Your task to perform on an android device: Open settings Image 0: 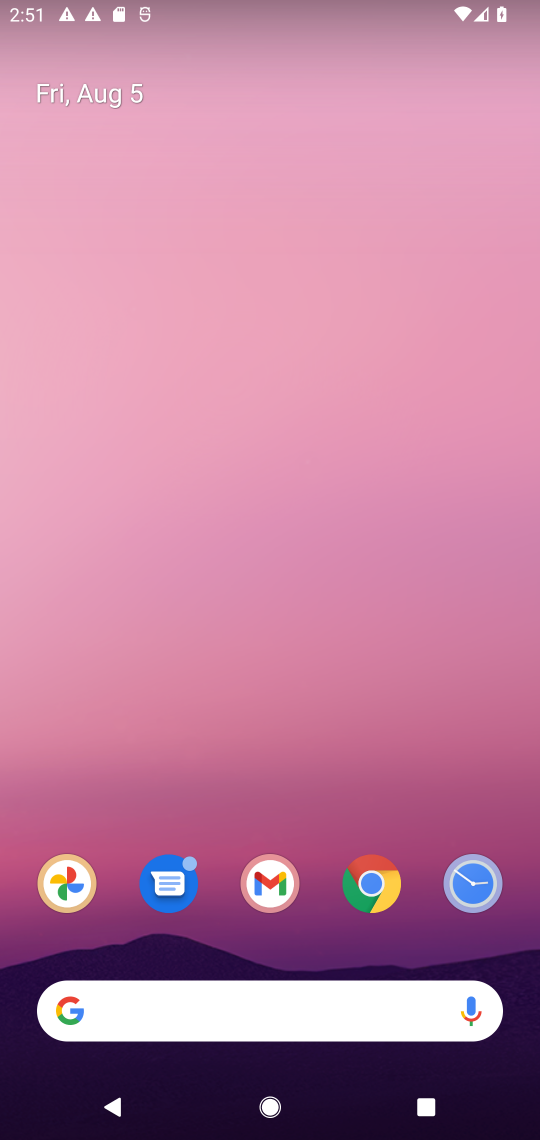
Step 0: press home button
Your task to perform on an android device: Open settings Image 1: 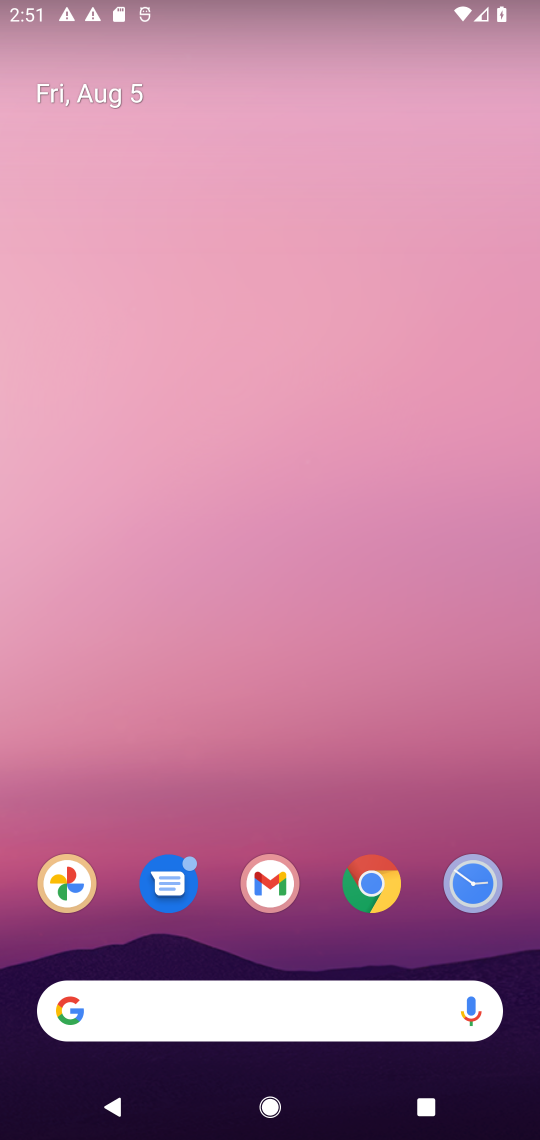
Step 1: drag from (318, 845) to (292, 81)
Your task to perform on an android device: Open settings Image 2: 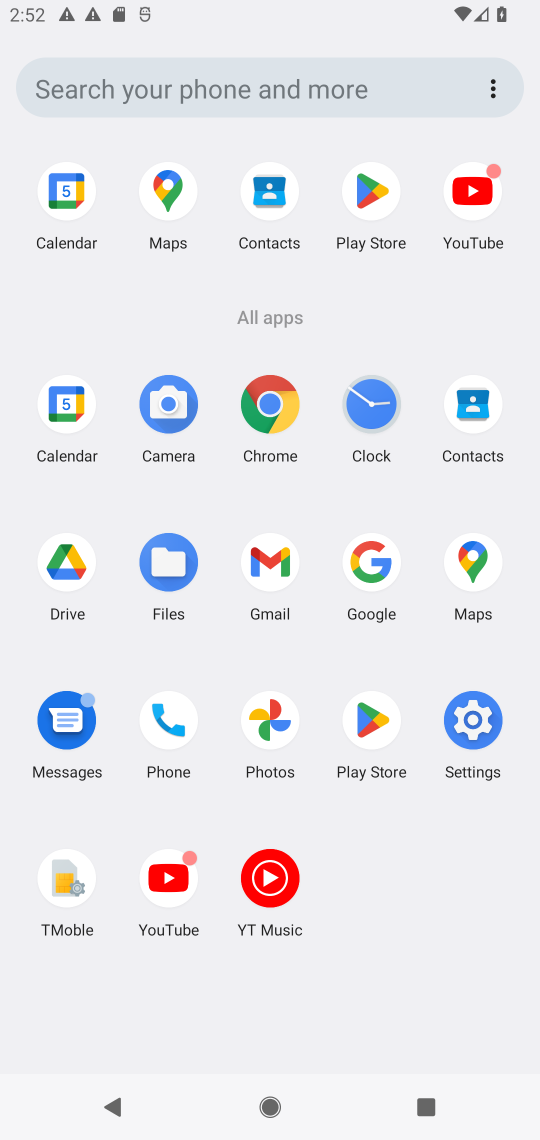
Step 2: click (469, 705)
Your task to perform on an android device: Open settings Image 3: 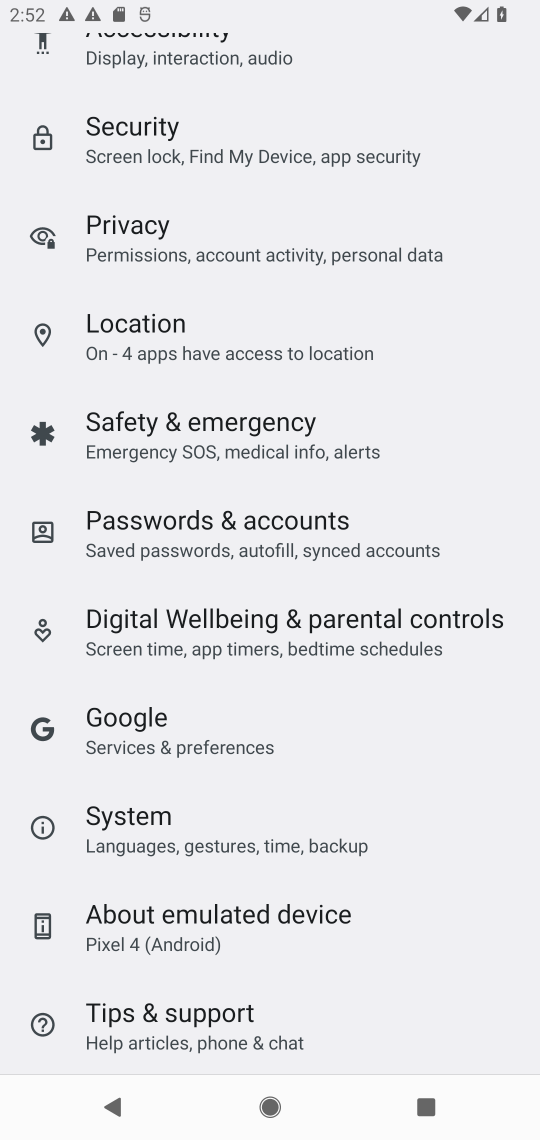
Step 3: task complete